Your task to perform on an android device: Go to notification settings Image 0: 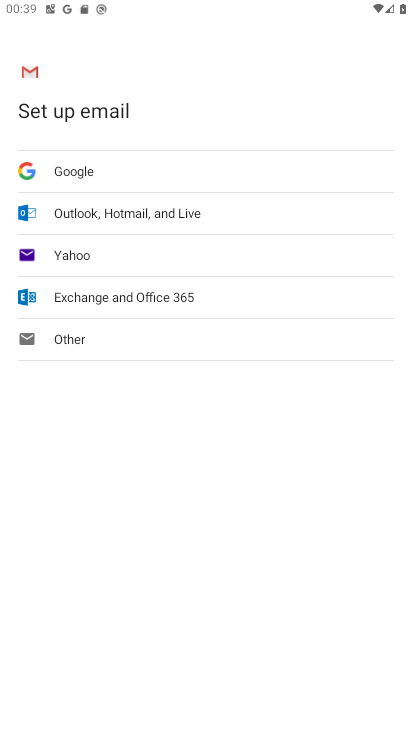
Step 0: press home button
Your task to perform on an android device: Go to notification settings Image 1: 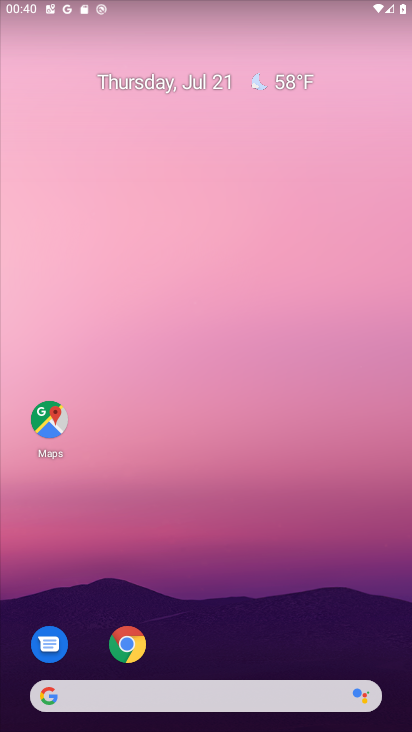
Step 1: drag from (171, 655) to (186, 6)
Your task to perform on an android device: Go to notification settings Image 2: 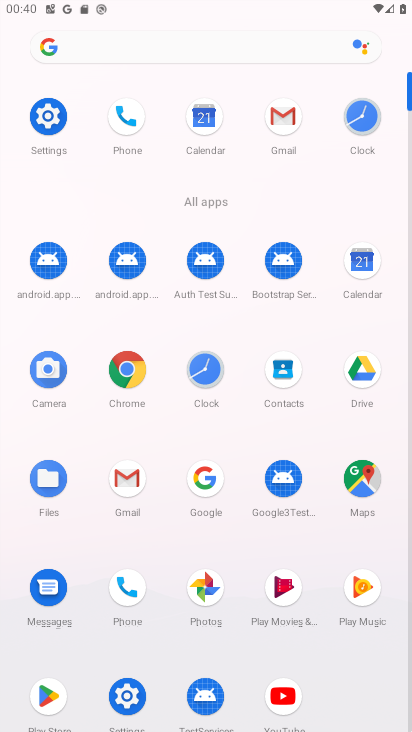
Step 2: click (41, 116)
Your task to perform on an android device: Go to notification settings Image 3: 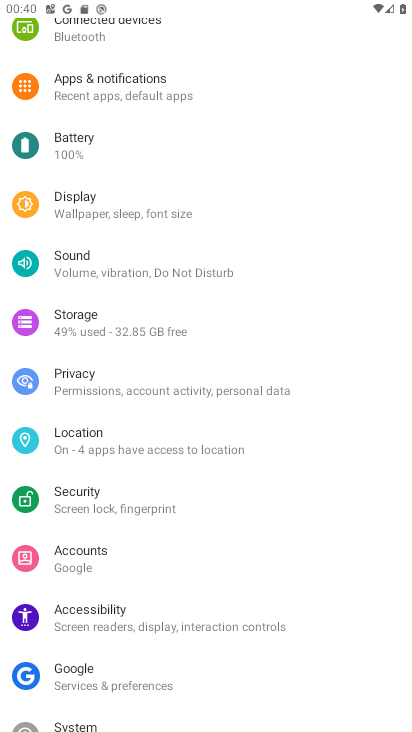
Step 3: click (166, 95)
Your task to perform on an android device: Go to notification settings Image 4: 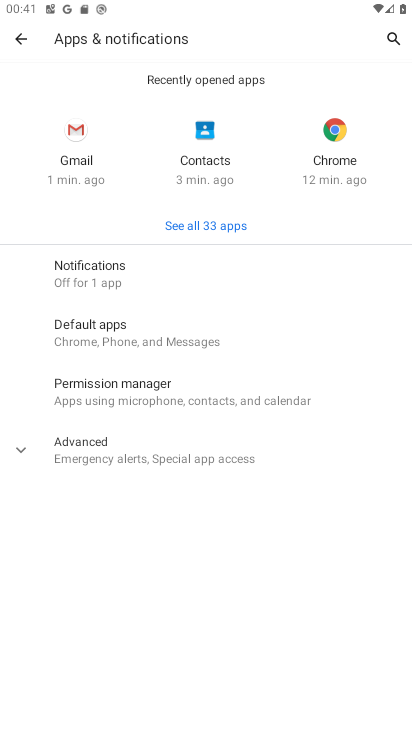
Step 4: task complete